Your task to perform on an android device: Open calendar and show me the second week of next month Image 0: 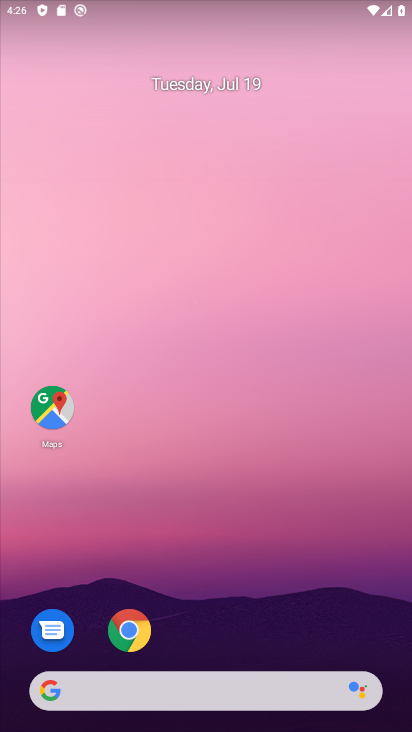
Step 0: drag from (270, 374) to (254, 217)
Your task to perform on an android device: Open calendar and show me the second week of next month Image 1: 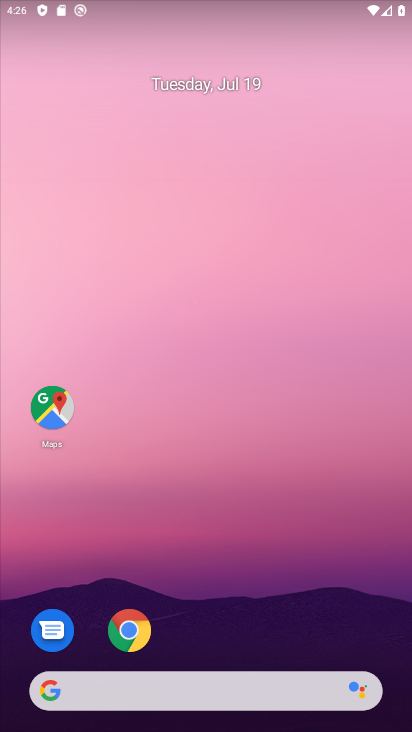
Step 1: drag from (285, 526) to (254, 265)
Your task to perform on an android device: Open calendar and show me the second week of next month Image 2: 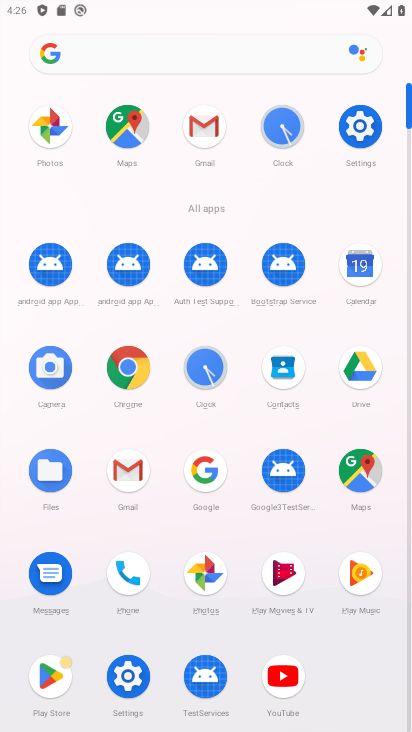
Step 2: click (356, 260)
Your task to perform on an android device: Open calendar and show me the second week of next month Image 3: 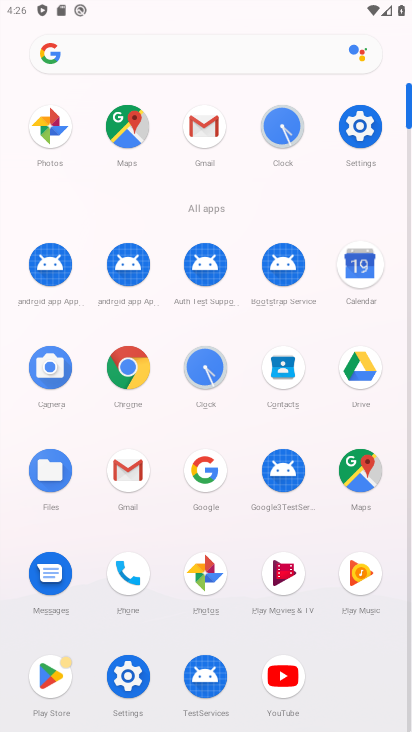
Step 3: click (363, 261)
Your task to perform on an android device: Open calendar and show me the second week of next month Image 4: 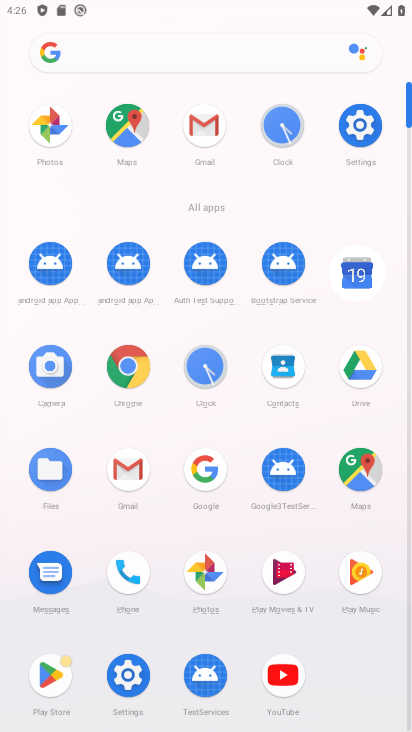
Step 4: click (364, 262)
Your task to perform on an android device: Open calendar and show me the second week of next month Image 5: 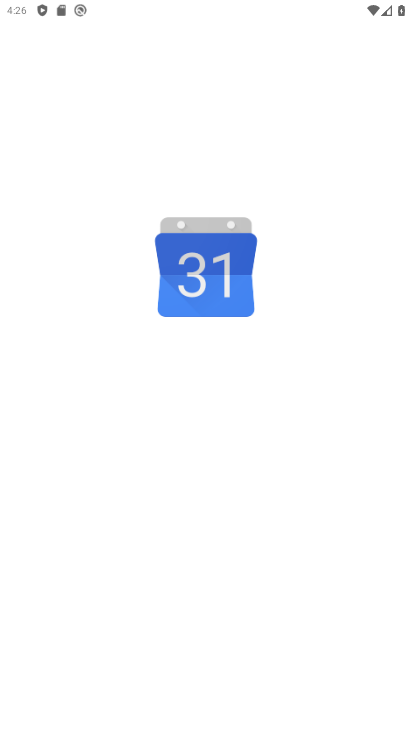
Step 5: click (365, 263)
Your task to perform on an android device: Open calendar and show me the second week of next month Image 6: 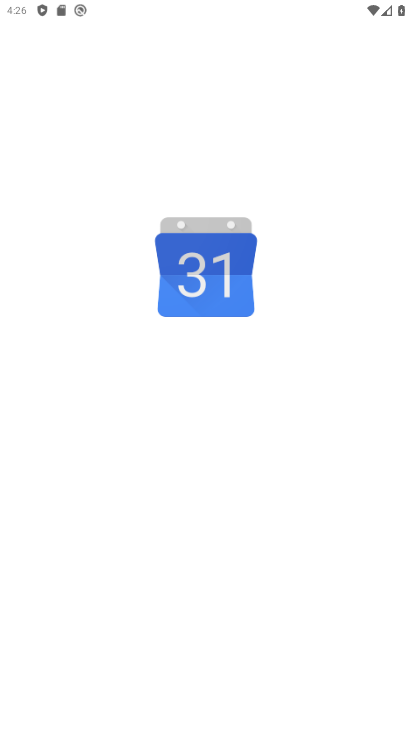
Step 6: click (363, 264)
Your task to perform on an android device: Open calendar and show me the second week of next month Image 7: 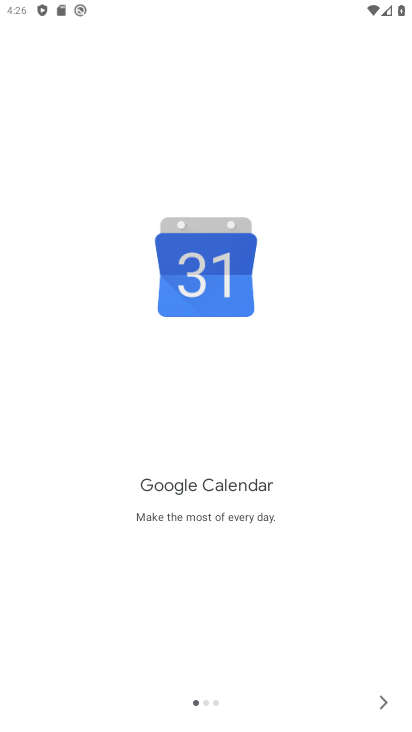
Step 7: click (374, 692)
Your task to perform on an android device: Open calendar and show me the second week of next month Image 8: 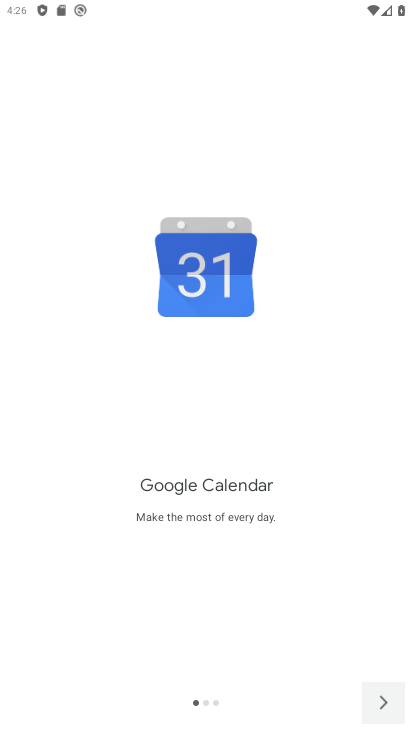
Step 8: click (375, 693)
Your task to perform on an android device: Open calendar and show me the second week of next month Image 9: 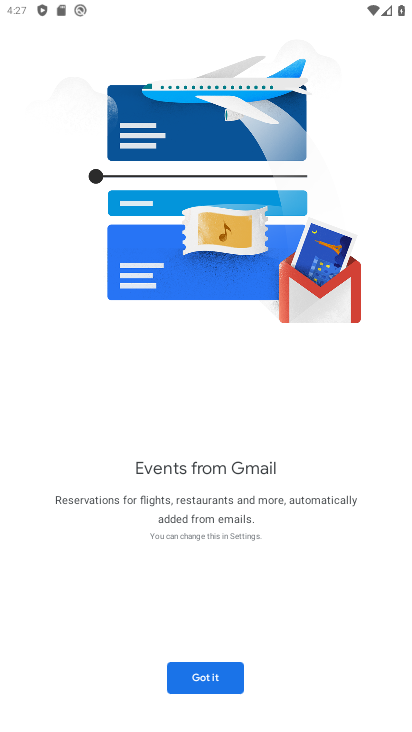
Step 9: click (208, 673)
Your task to perform on an android device: Open calendar and show me the second week of next month Image 10: 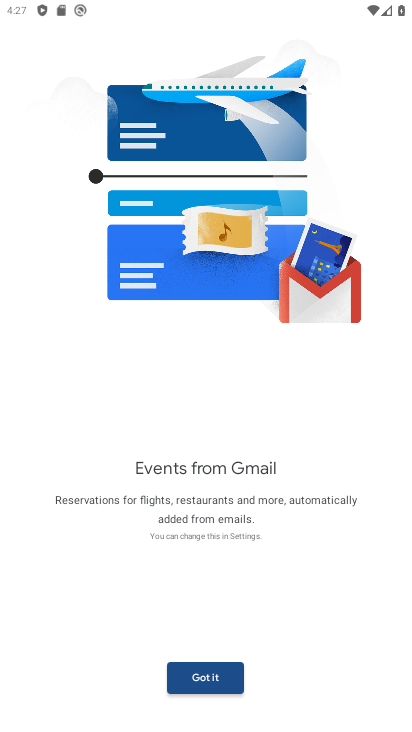
Step 10: click (208, 675)
Your task to perform on an android device: Open calendar and show me the second week of next month Image 11: 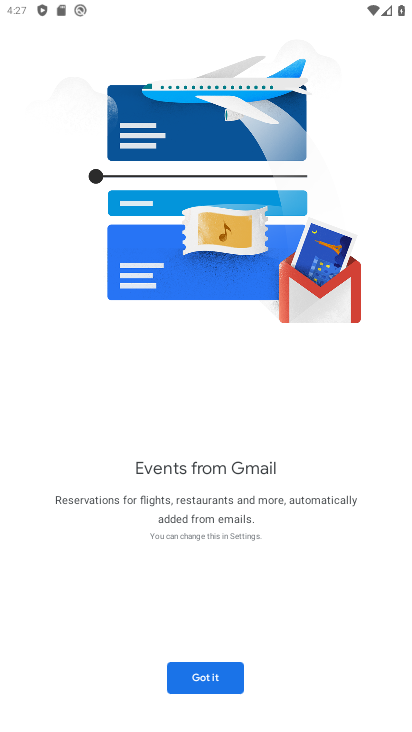
Step 11: click (210, 679)
Your task to perform on an android device: Open calendar and show me the second week of next month Image 12: 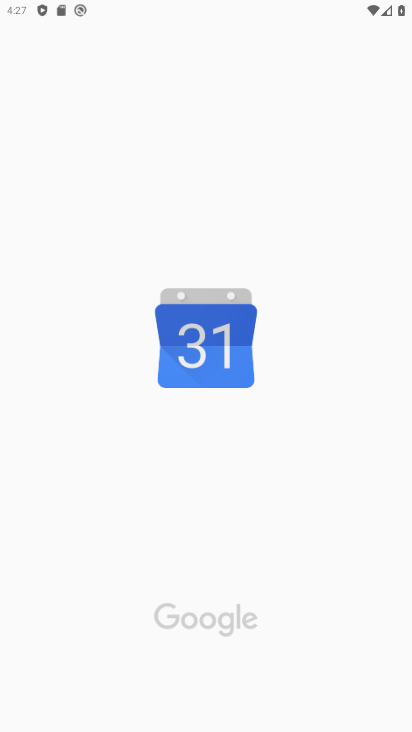
Step 12: click (212, 680)
Your task to perform on an android device: Open calendar and show me the second week of next month Image 13: 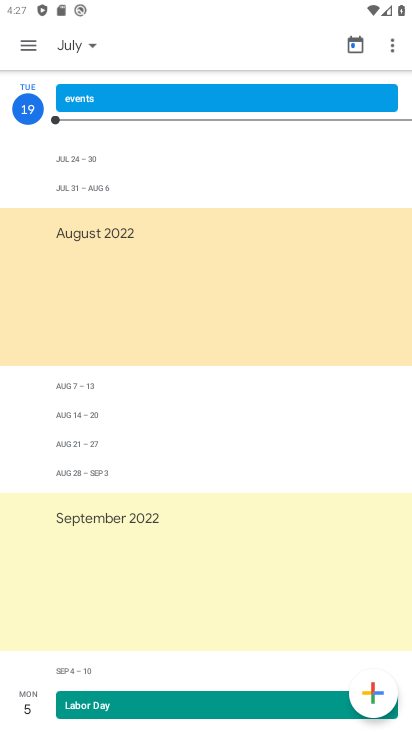
Step 13: click (96, 33)
Your task to perform on an android device: Open calendar and show me the second week of next month Image 14: 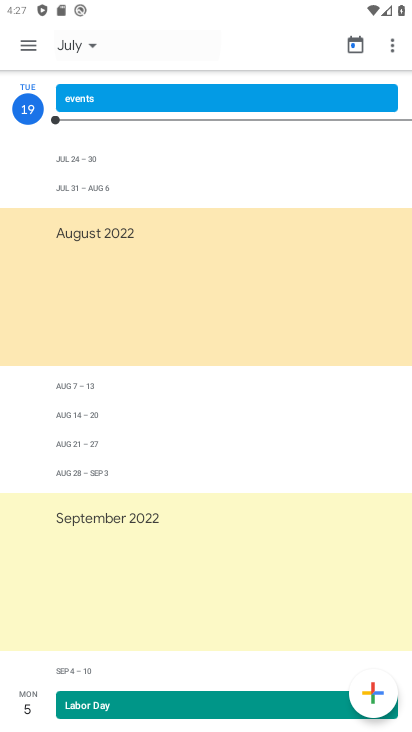
Step 14: click (99, 38)
Your task to perform on an android device: Open calendar and show me the second week of next month Image 15: 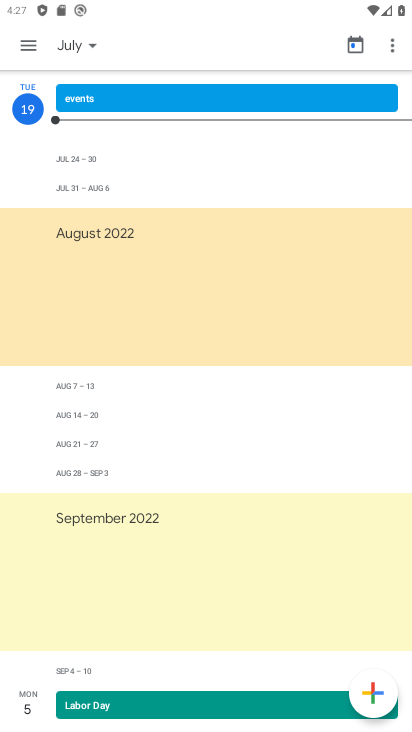
Step 15: click (91, 41)
Your task to perform on an android device: Open calendar and show me the second week of next month Image 16: 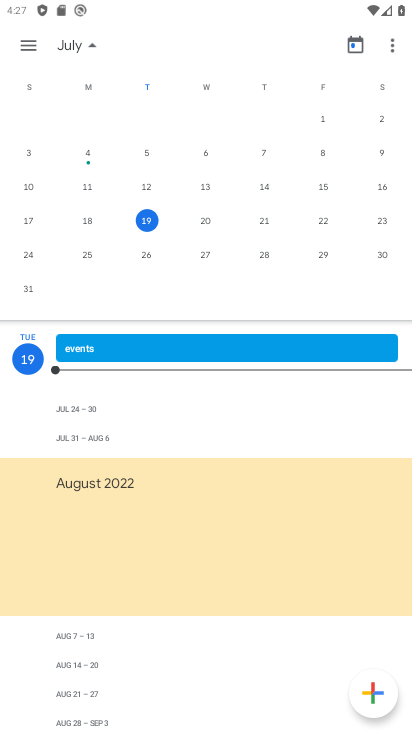
Step 16: click (16, 206)
Your task to perform on an android device: Open calendar and show me the second week of next month Image 17: 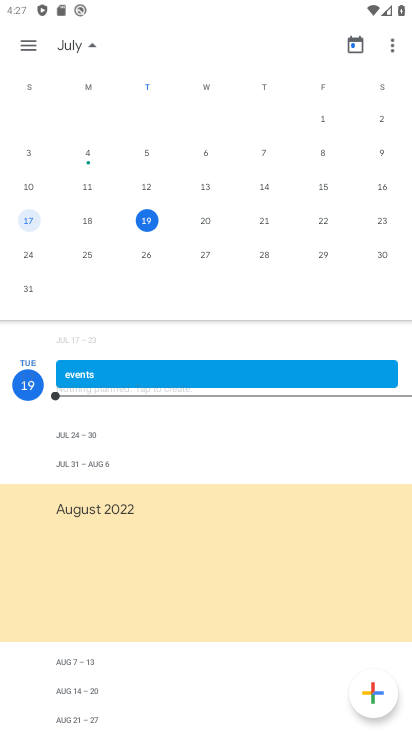
Step 17: drag from (154, 226) to (17, 260)
Your task to perform on an android device: Open calendar and show me the second week of next month Image 18: 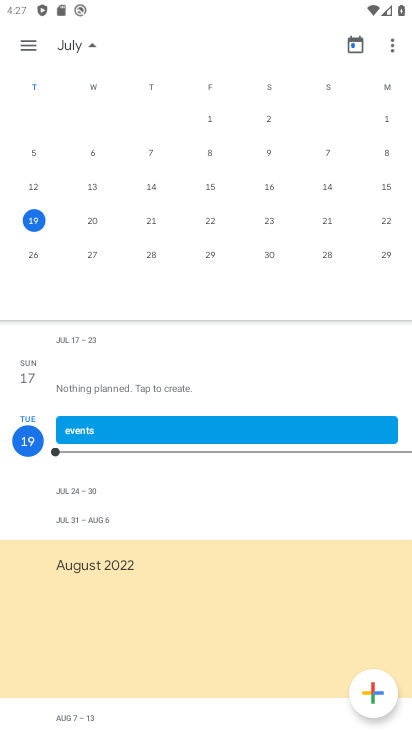
Step 18: drag from (333, 241) to (15, 237)
Your task to perform on an android device: Open calendar and show me the second week of next month Image 19: 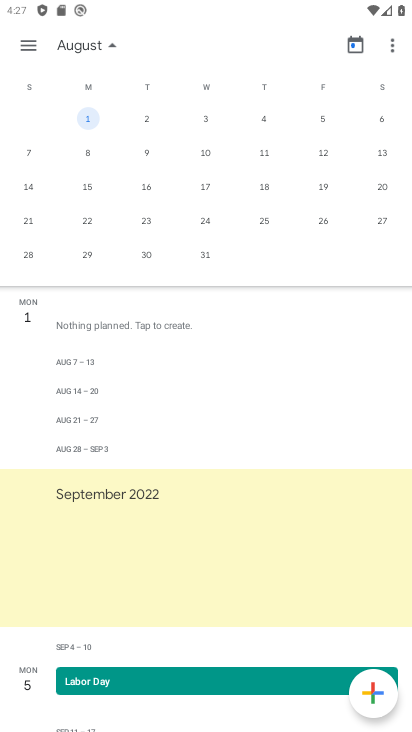
Step 19: click (143, 150)
Your task to perform on an android device: Open calendar and show me the second week of next month Image 20: 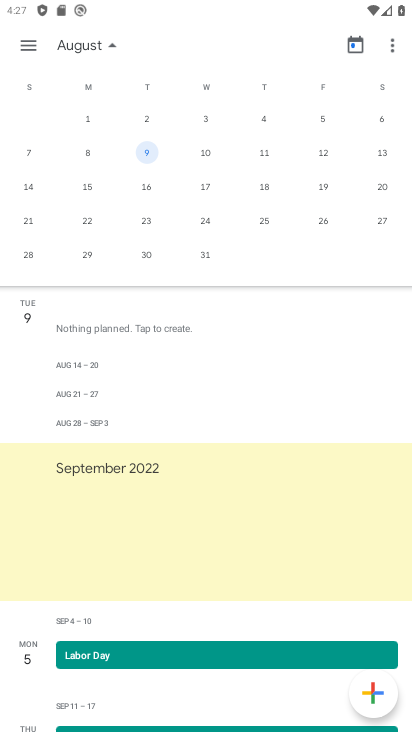
Step 20: click (143, 150)
Your task to perform on an android device: Open calendar and show me the second week of next month Image 21: 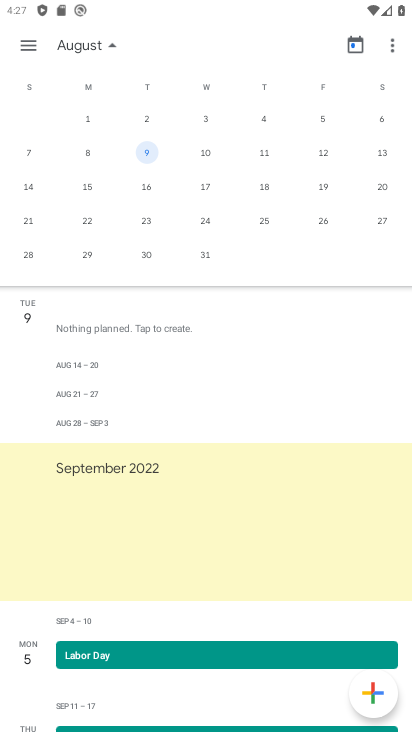
Step 21: task complete